Your task to perform on an android device: Search for seafood restaurants on Google Maps Image 0: 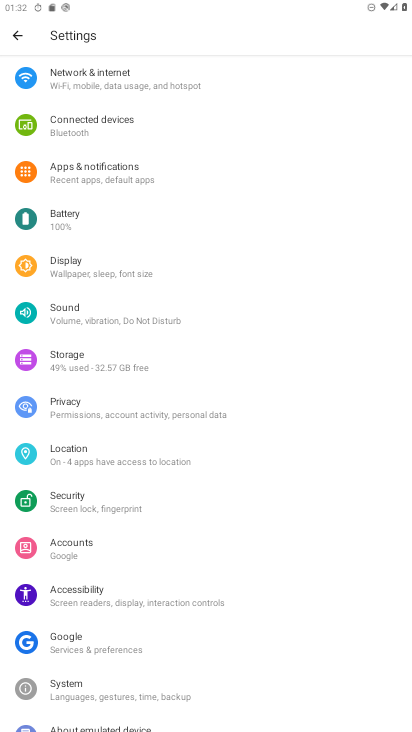
Step 0: press home button
Your task to perform on an android device: Search for seafood restaurants on Google Maps Image 1: 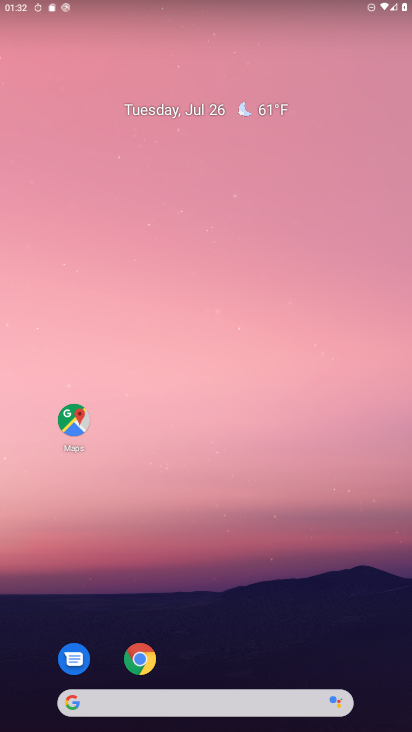
Step 1: click (135, 702)
Your task to perform on an android device: Search for seafood restaurants on Google Maps Image 2: 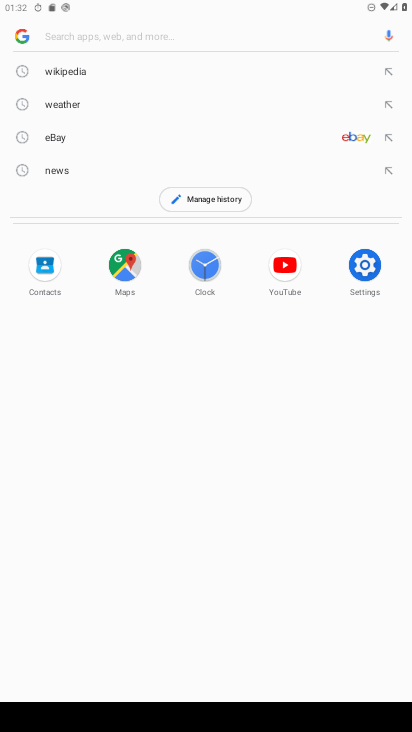
Step 2: type "seafood restaurants"
Your task to perform on an android device: Search for seafood restaurants on Google Maps Image 3: 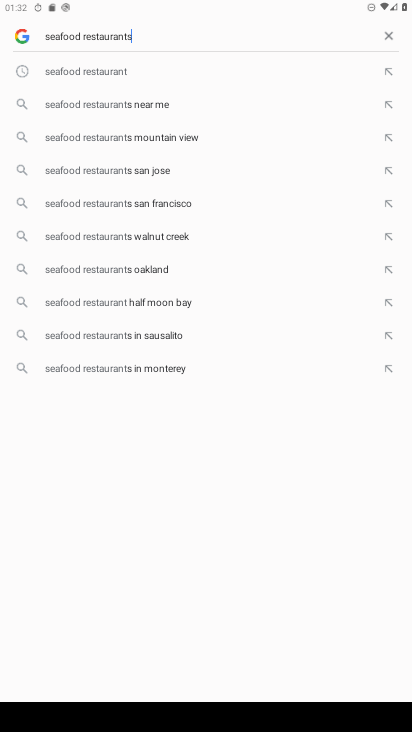
Step 3: type ""
Your task to perform on an android device: Search for seafood restaurants on Google Maps Image 4: 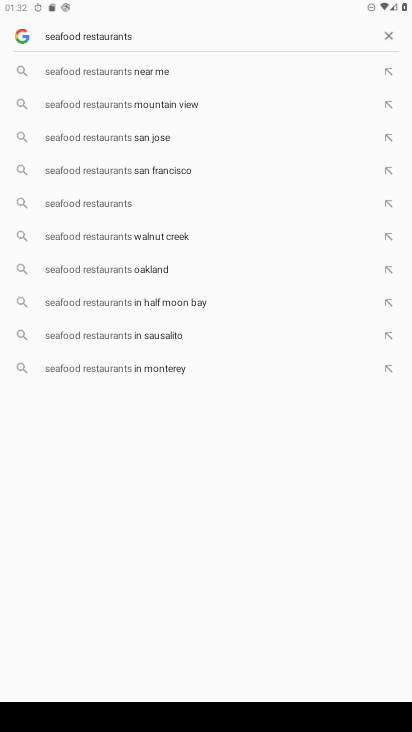
Step 4: type ""
Your task to perform on an android device: Search for seafood restaurants on Google Maps Image 5: 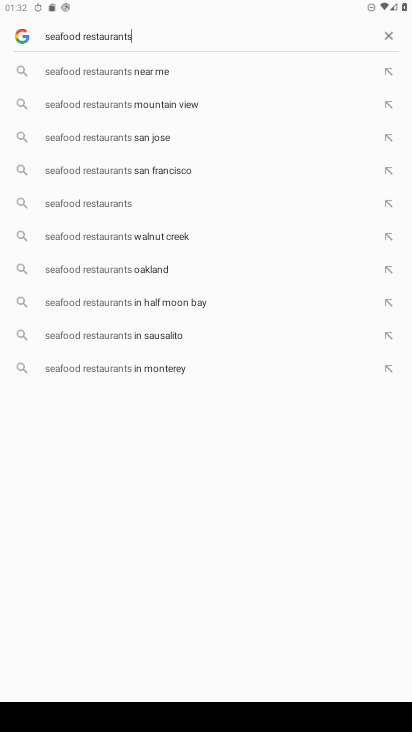
Step 5: type ""
Your task to perform on an android device: Search for seafood restaurants on Google Maps Image 6: 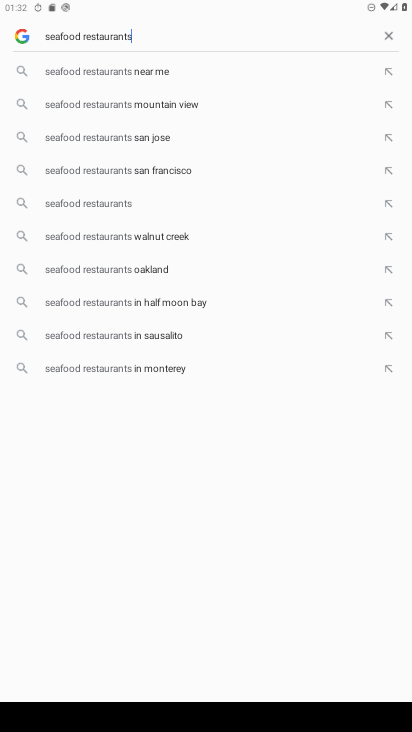
Step 6: task complete